Your task to perform on an android device: turn on showing notifications on the lock screen Image 0: 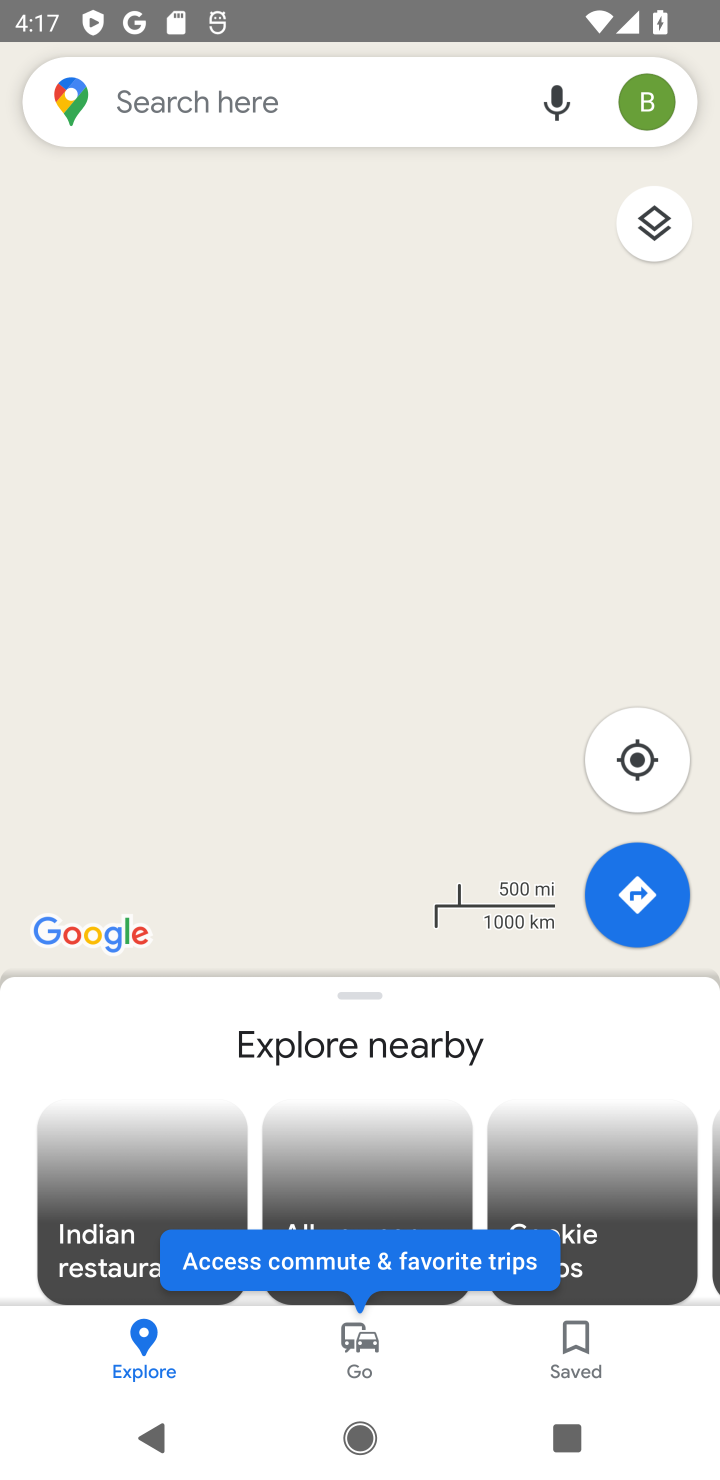
Step 0: press home button
Your task to perform on an android device: turn on showing notifications on the lock screen Image 1: 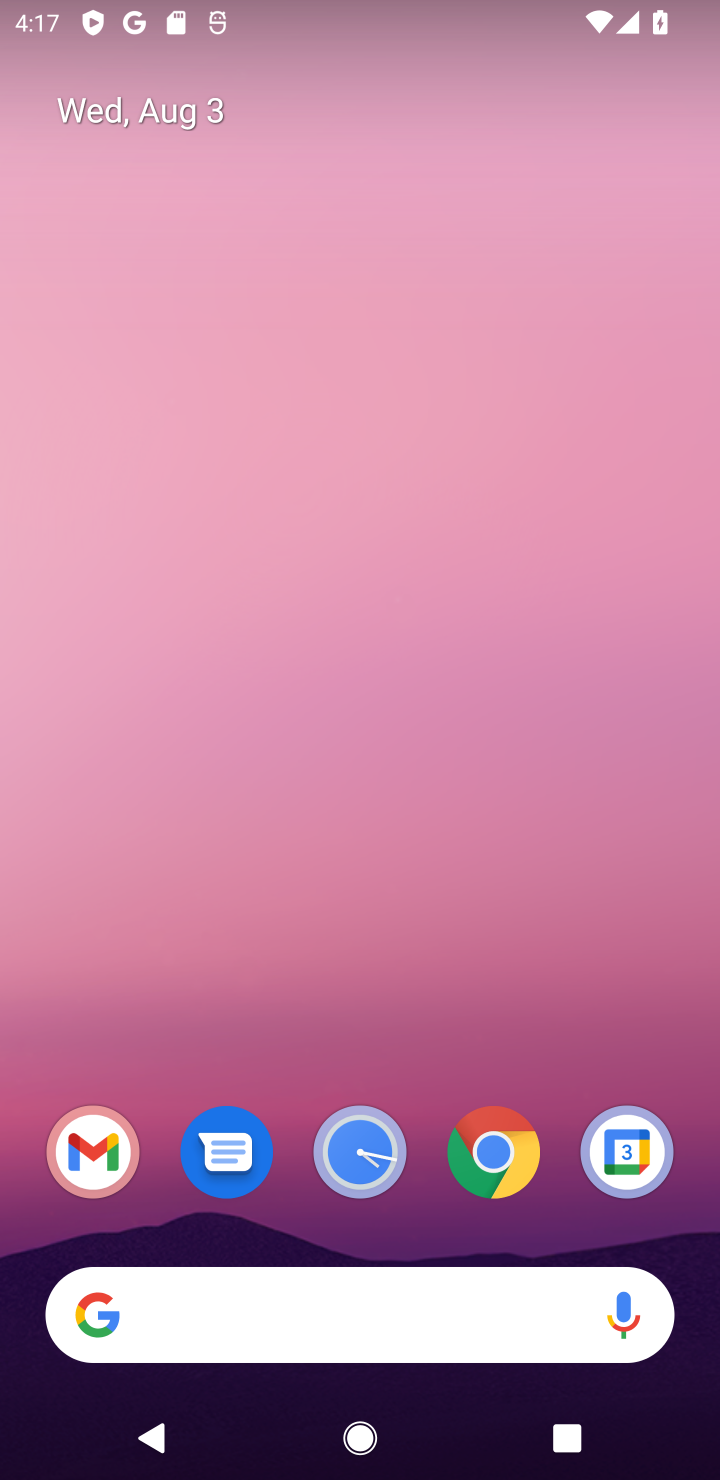
Step 1: drag from (310, 1266) to (460, 80)
Your task to perform on an android device: turn on showing notifications on the lock screen Image 2: 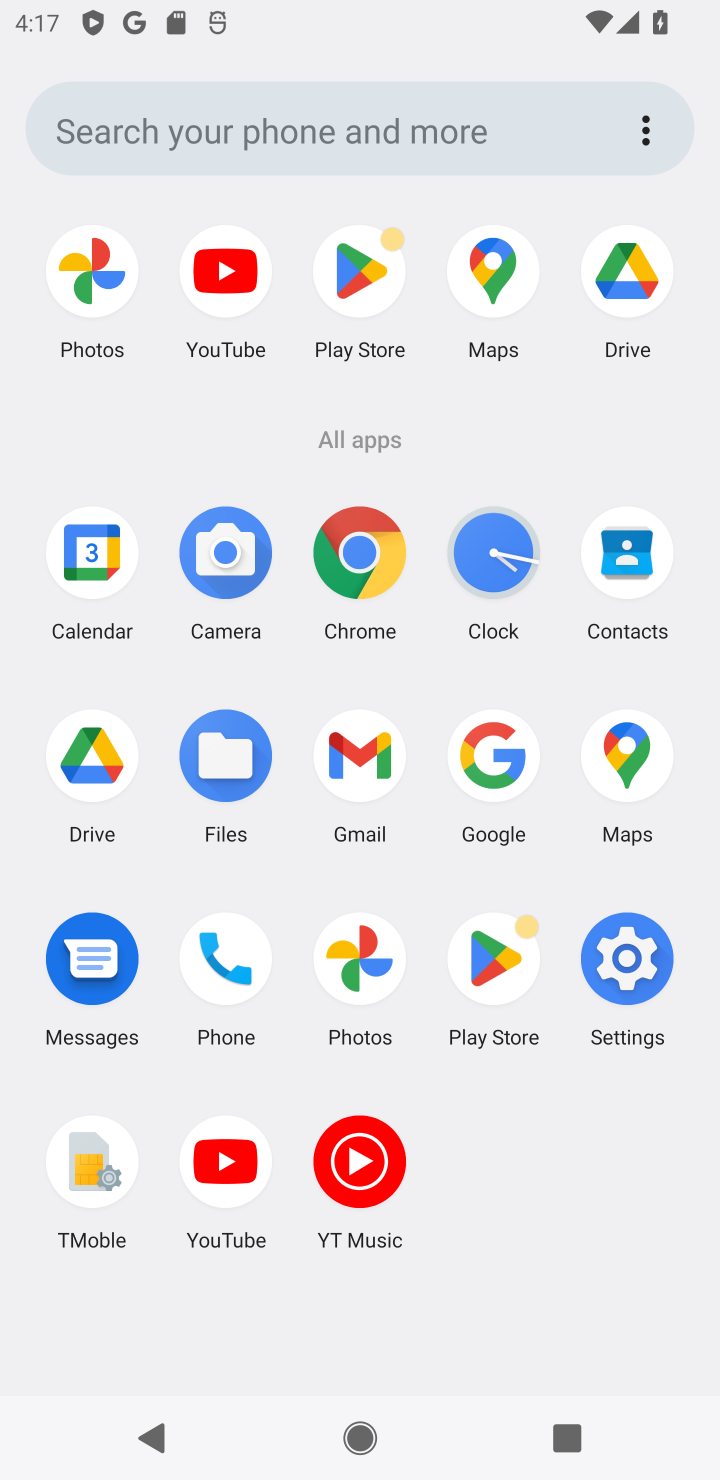
Step 2: click (624, 972)
Your task to perform on an android device: turn on showing notifications on the lock screen Image 3: 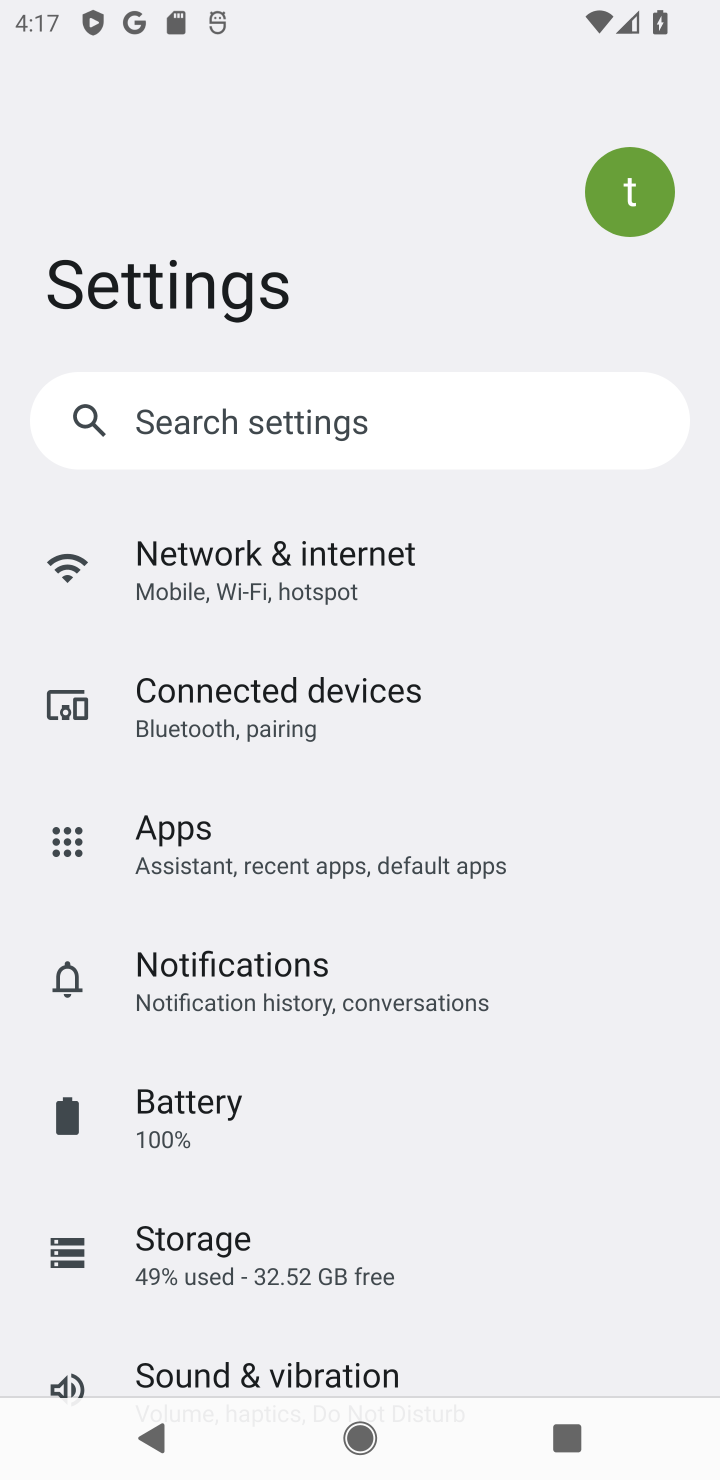
Step 3: click (312, 1005)
Your task to perform on an android device: turn on showing notifications on the lock screen Image 4: 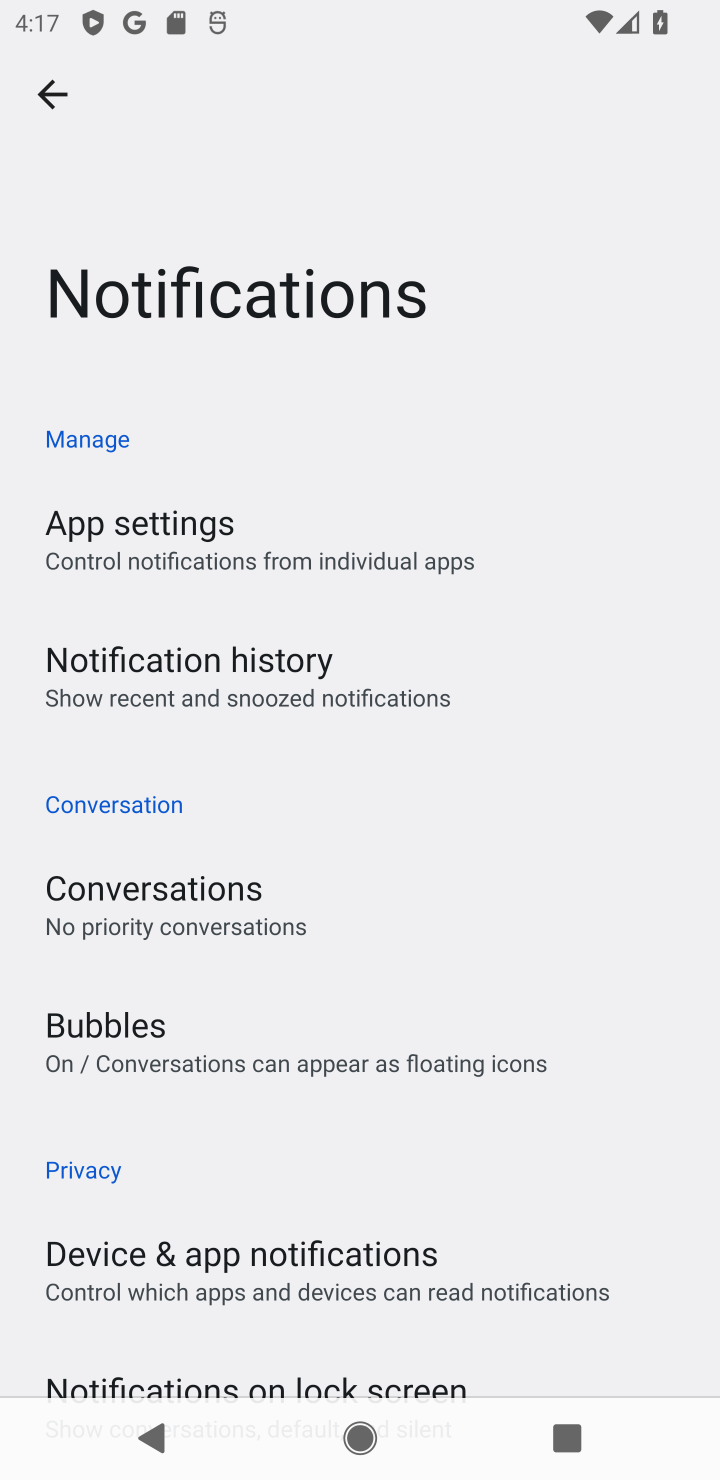
Step 4: drag from (224, 1351) to (257, 1010)
Your task to perform on an android device: turn on showing notifications on the lock screen Image 5: 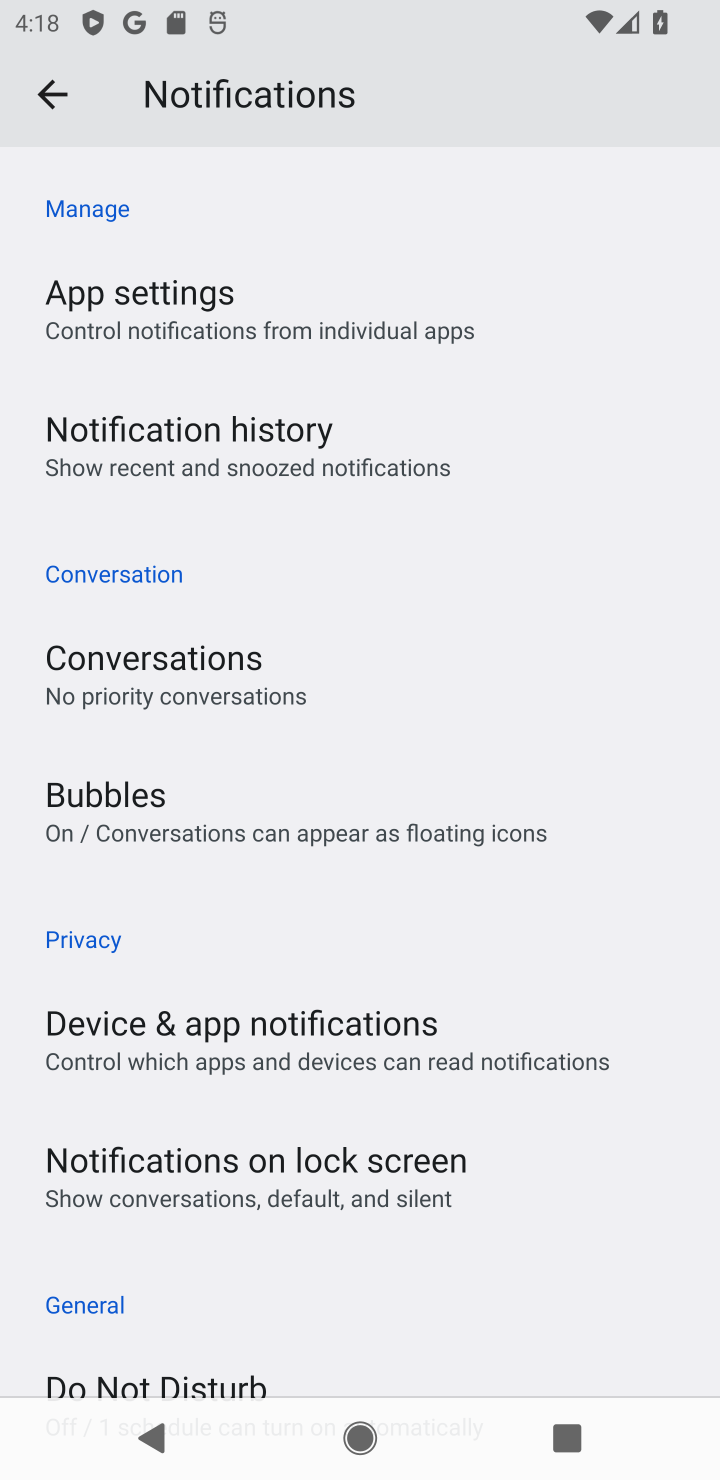
Step 5: click (285, 1153)
Your task to perform on an android device: turn on showing notifications on the lock screen Image 6: 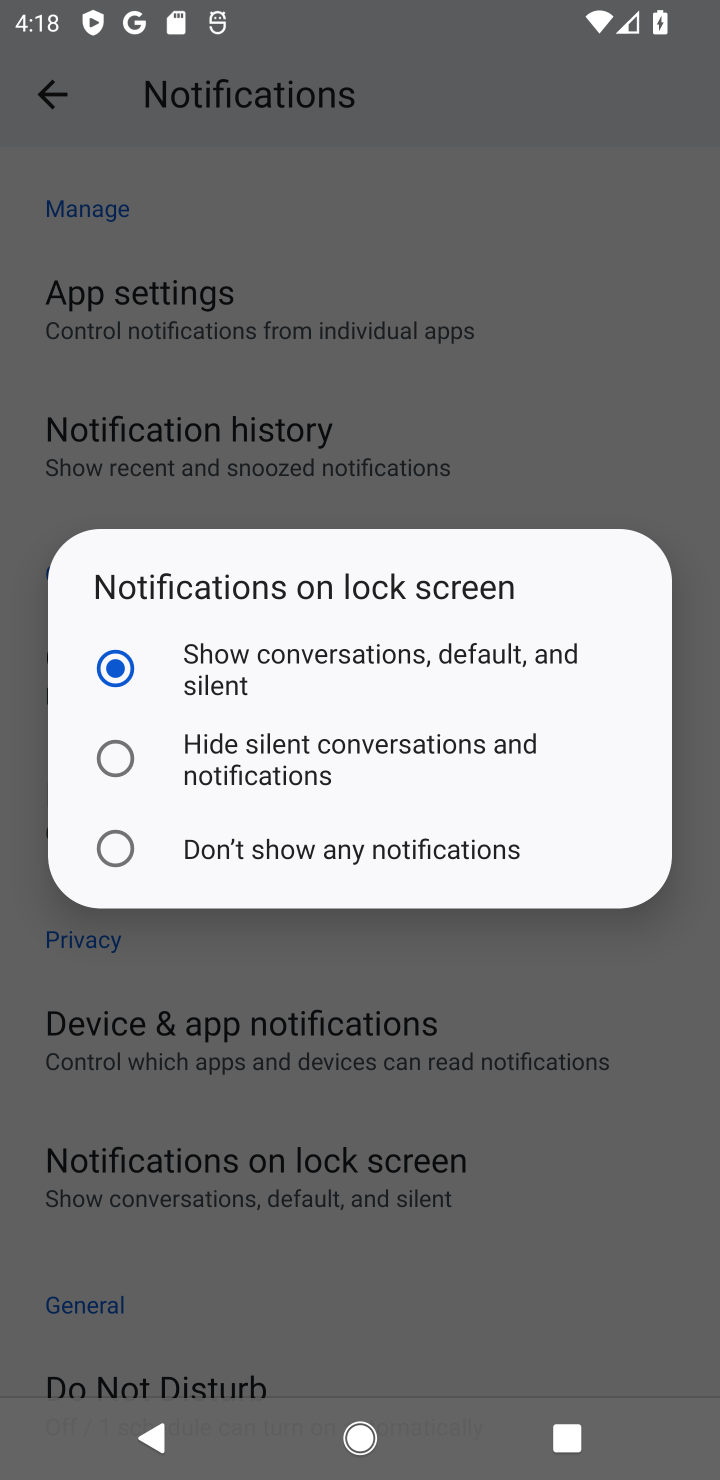
Step 6: click (296, 914)
Your task to perform on an android device: turn on showing notifications on the lock screen Image 7: 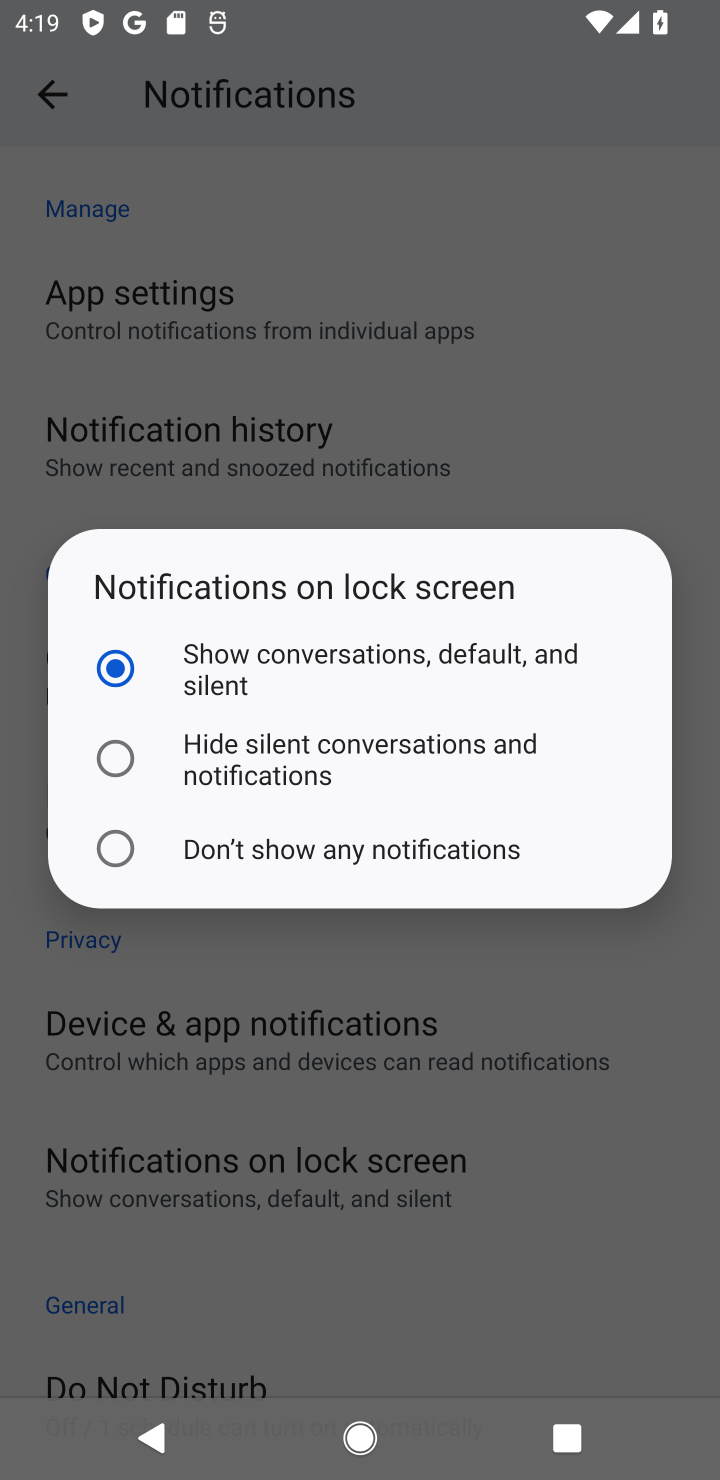
Step 7: click (256, 648)
Your task to perform on an android device: turn on showing notifications on the lock screen Image 8: 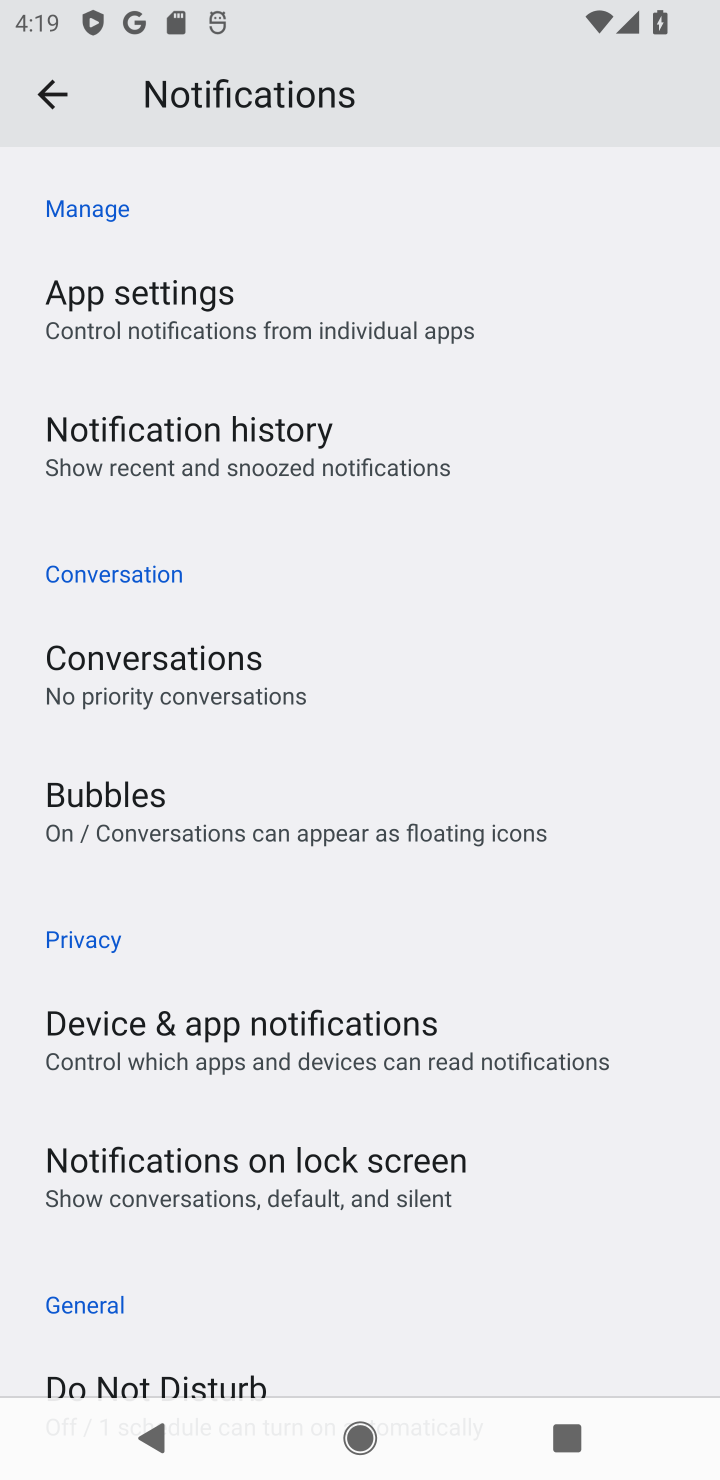
Step 8: task complete